Your task to perform on an android device: turn on location history Image 0: 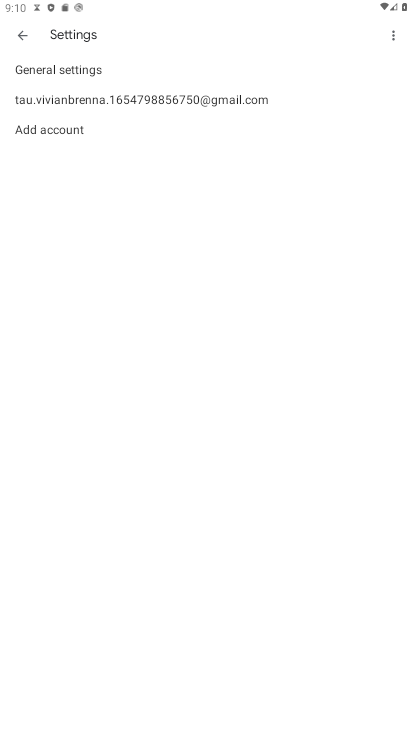
Step 0: press home button
Your task to perform on an android device: turn on location history Image 1: 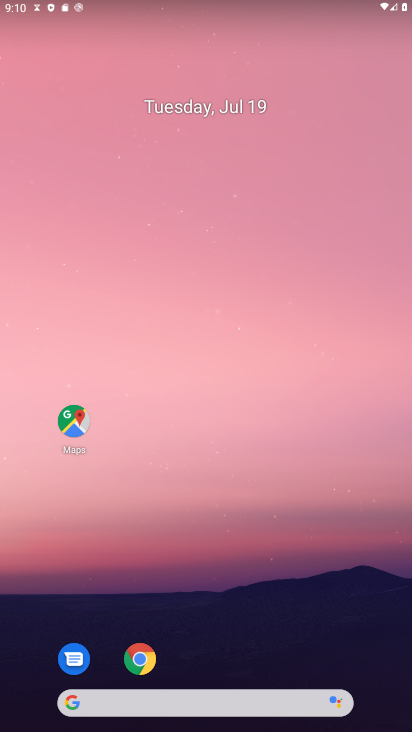
Step 1: drag from (219, 641) to (115, 21)
Your task to perform on an android device: turn on location history Image 2: 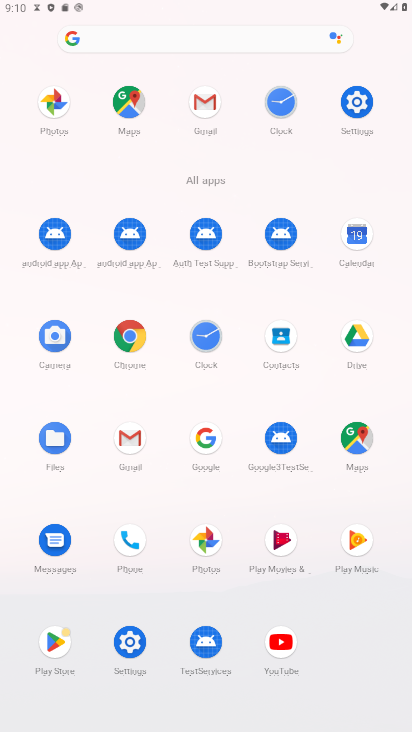
Step 2: click (347, 94)
Your task to perform on an android device: turn on location history Image 3: 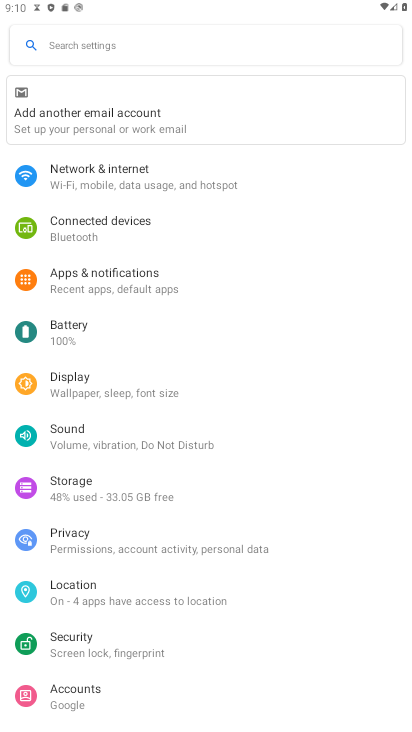
Step 3: click (126, 612)
Your task to perform on an android device: turn on location history Image 4: 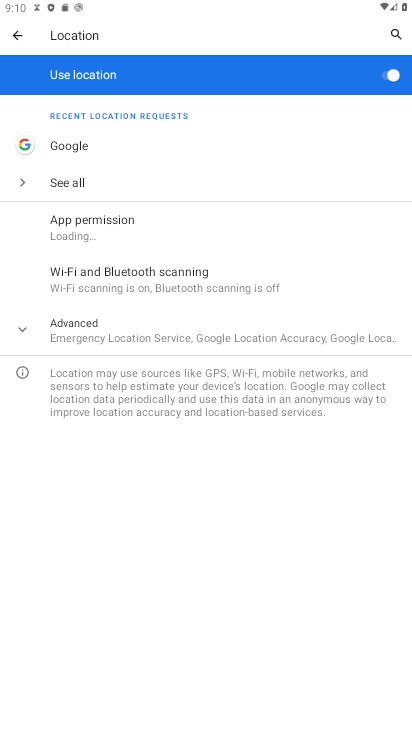
Step 4: click (85, 330)
Your task to perform on an android device: turn on location history Image 5: 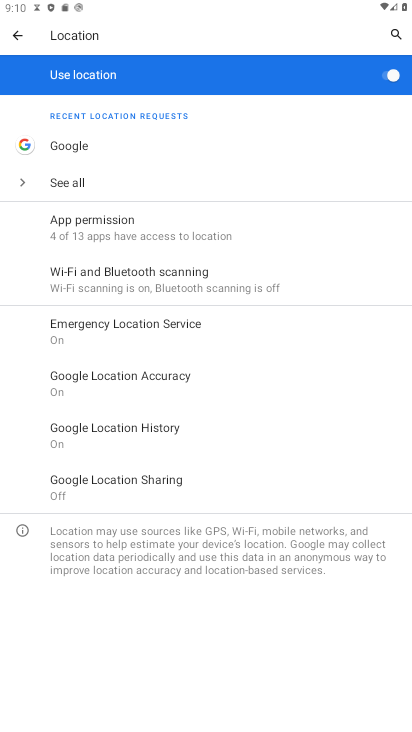
Step 5: click (91, 418)
Your task to perform on an android device: turn on location history Image 6: 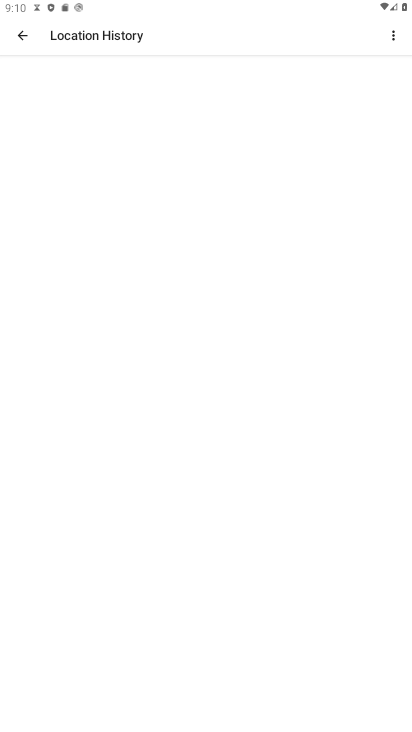
Step 6: click (98, 417)
Your task to perform on an android device: turn on location history Image 7: 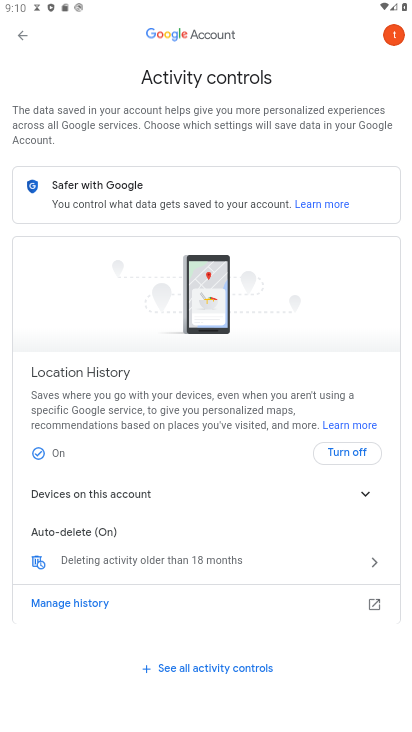
Step 7: task complete